Your task to perform on an android device: choose inbox layout in the gmail app Image 0: 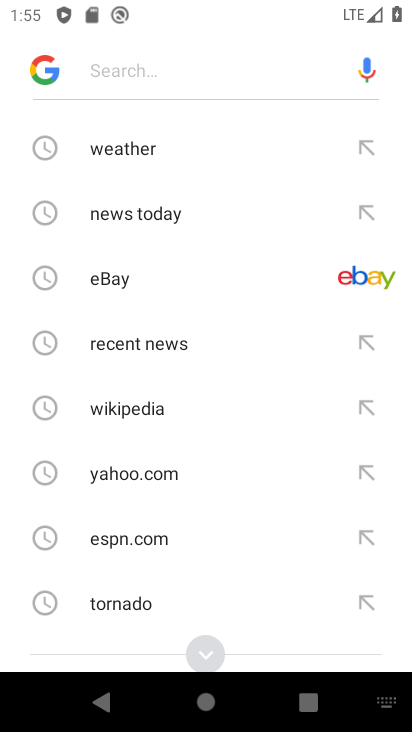
Step 0: press home button
Your task to perform on an android device: choose inbox layout in the gmail app Image 1: 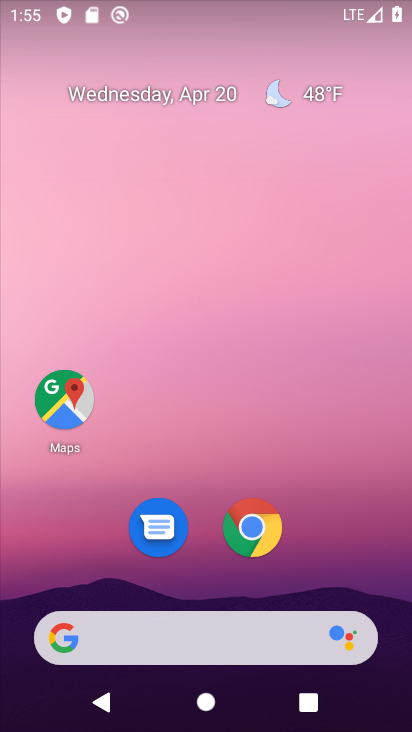
Step 1: drag from (219, 572) to (209, 16)
Your task to perform on an android device: choose inbox layout in the gmail app Image 2: 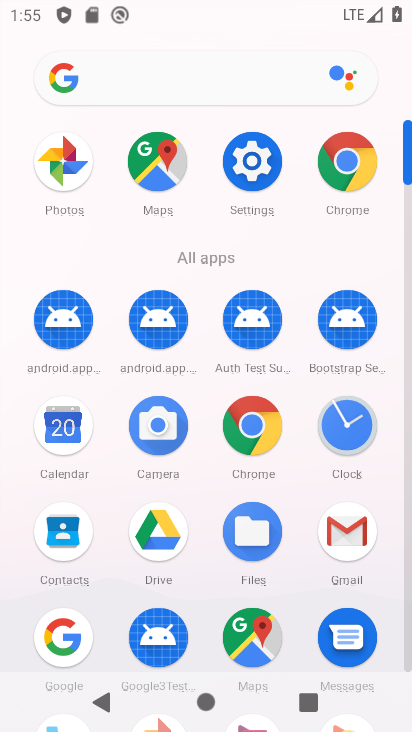
Step 2: click (348, 555)
Your task to perform on an android device: choose inbox layout in the gmail app Image 3: 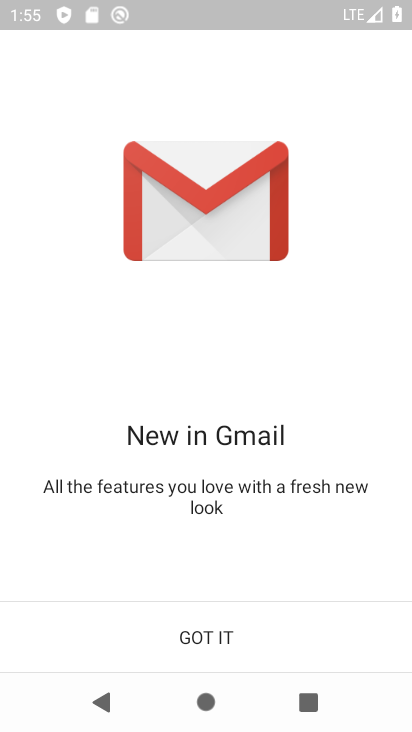
Step 3: click (147, 672)
Your task to perform on an android device: choose inbox layout in the gmail app Image 4: 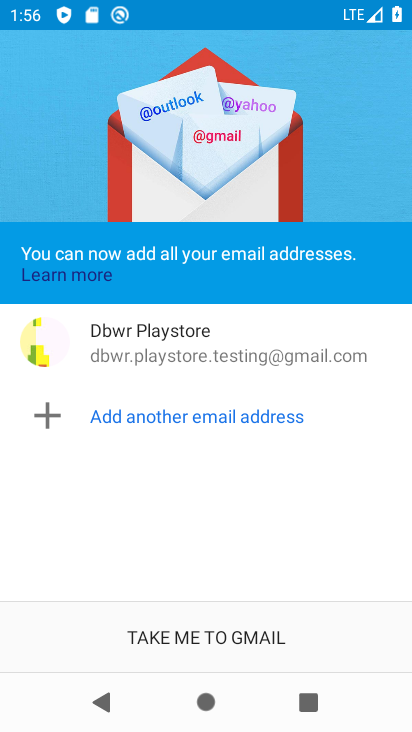
Step 4: click (147, 672)
Your task to perform on an android device: choose inbox layout in the gmail app Image 5: 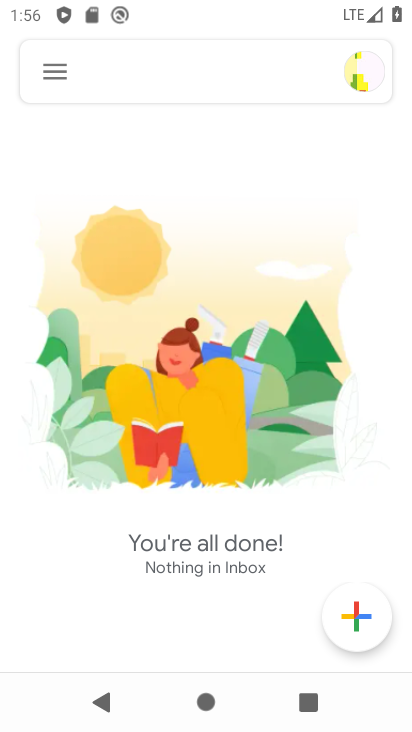
Step 5: click (70, 85)
Your task to perform on an android device: choose inbox layout in the gmail app Image 6: 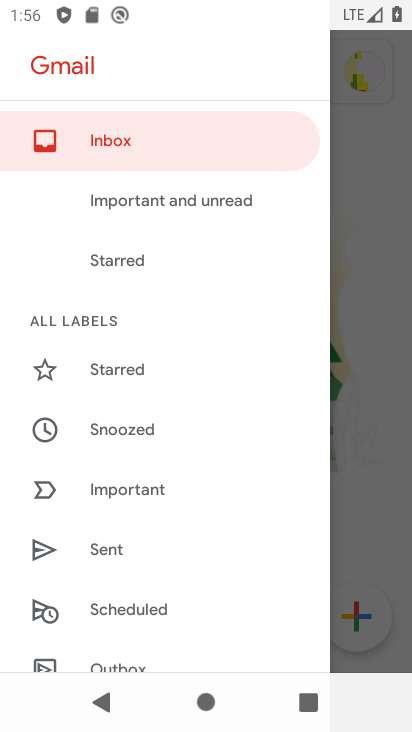
Step 6: drag from (84, 595) to (109, 93)
Your task to perform on an android device: choose inbox layout in the gmail app Image 7: 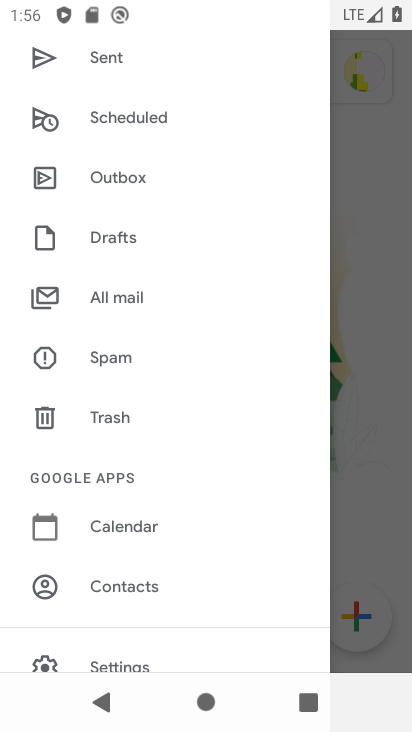
Step 7: click (178, 668)
Your task to perform on an android device: choose inbox layout in the gmail app Image 8: 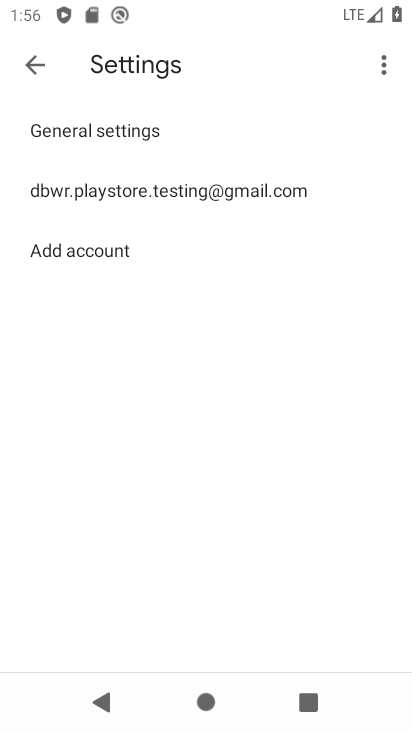
Step 8: click (175, 210)
Your task to perform on an android device: choose inbox layout in the gmail app Image 9: 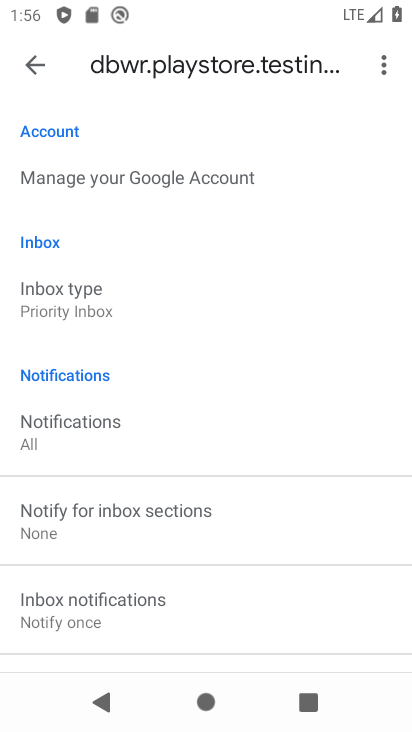
Step 9: click (57, 300)
Your task to perform on an android device: choose inbox layout in the gmail app Image 10: 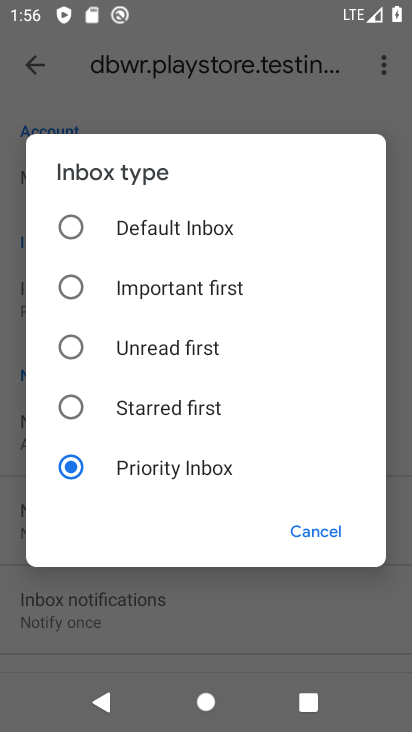
Step 10: click (63, 296)
Your task to perform on an android device: choose inbox layout in the gmail app Image 11: 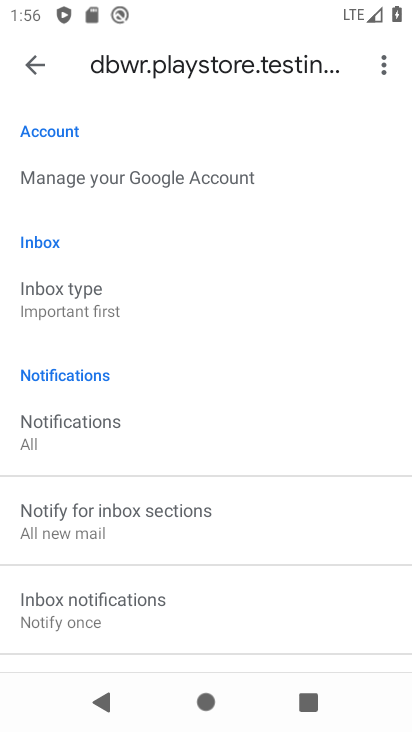
Step 11: task complete